Your task to perform on an android device: turn off priority inbox in the gmail app Image 0: 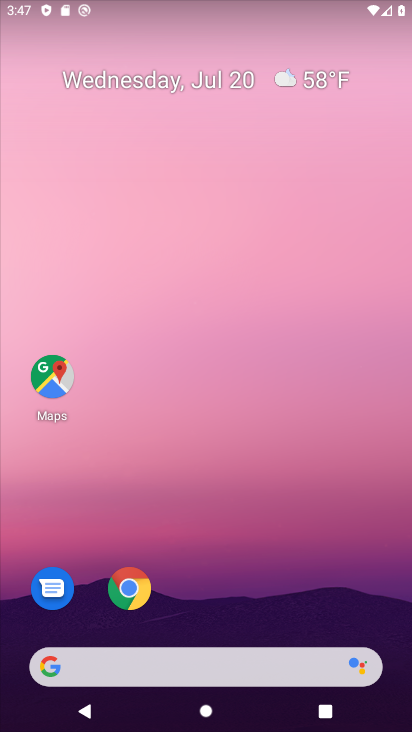
Step 0: drag from (251, 641) to (247, 53)
Your task to perform on an android device: turn off priority inbox in the gmail app Image 1: 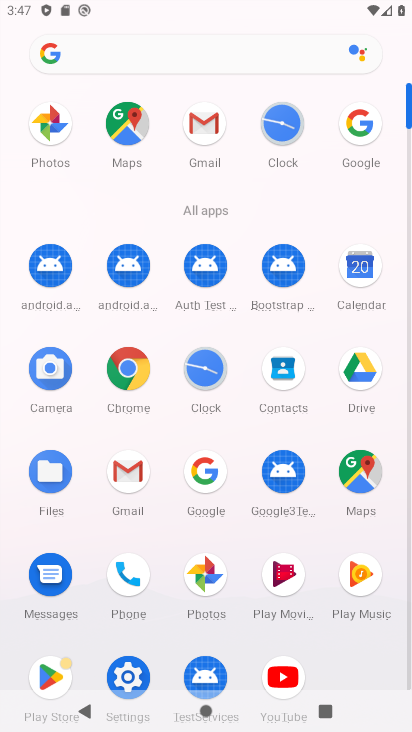
Step 1: click (126, 474)
Your task to perform on an android device: turn off priority inbox in the gmail app Image 2: 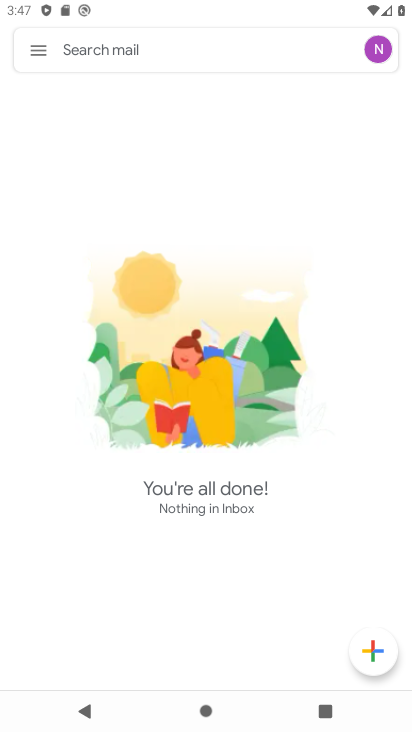
Step 2: click (40, 53)
Your task to perform on an android device: turn off priority inbox in the gmail app Image 3: 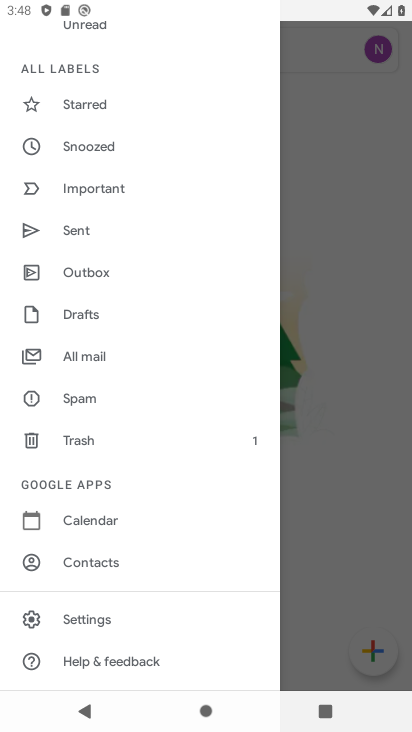
Step 3: click (108, 617)
Your task to perform on an android device: turn off priority inbox in the gmail app Image 4: 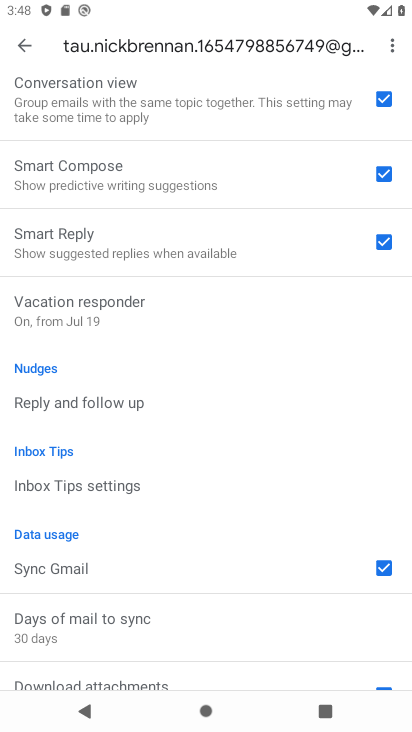
Step 4: drag from (88, 125) to (135, 484)
Your task to perform on an android device: turn off priority inbox in the gmail app Image 5: 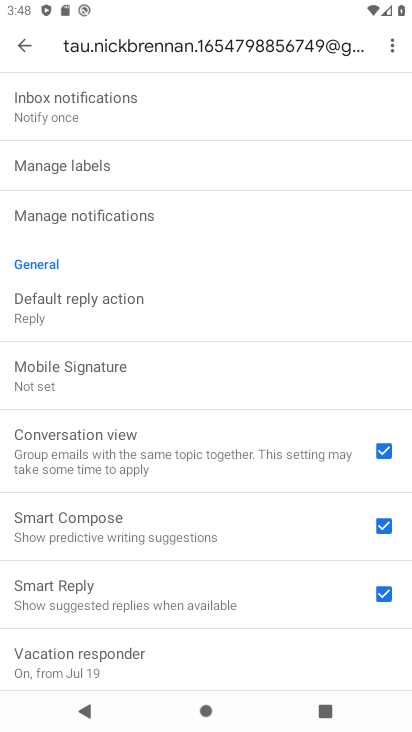
Step 5: drag from (79, 84) to (114, 514)
Your task to perform on an android device: turn off priority inbox in the gmail app Image 6: 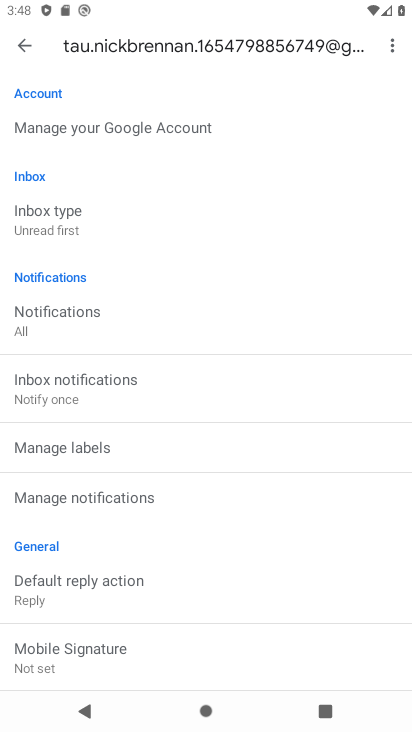
Step 6: click (41, 220)
Your task to perform on an android device: turn off priority inbox in the gmail app Image 7: 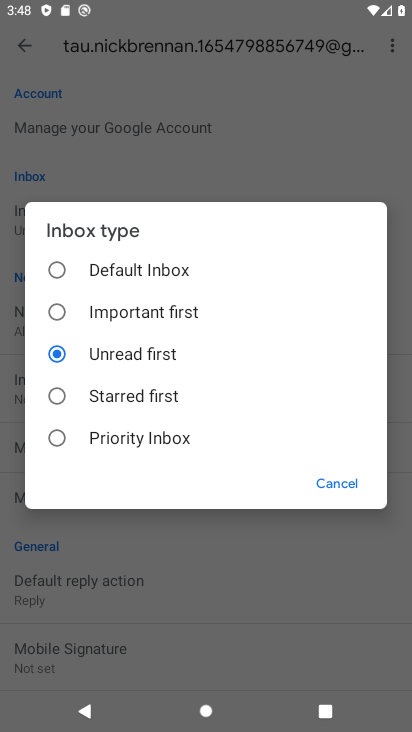
Step 7: click (140, 428)
Your task to perform on an android device: turn off priority inbox in the gmail app Image 8: 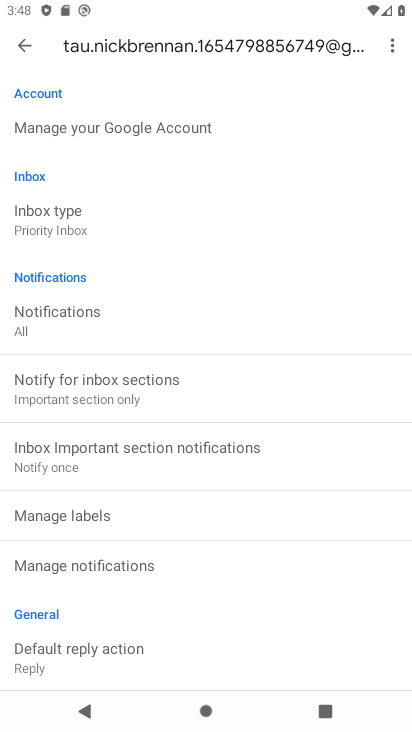
Step 8: click (66, 224)
Your task to perform on an android device: turn off priority inbox in the gmail app Image 9: 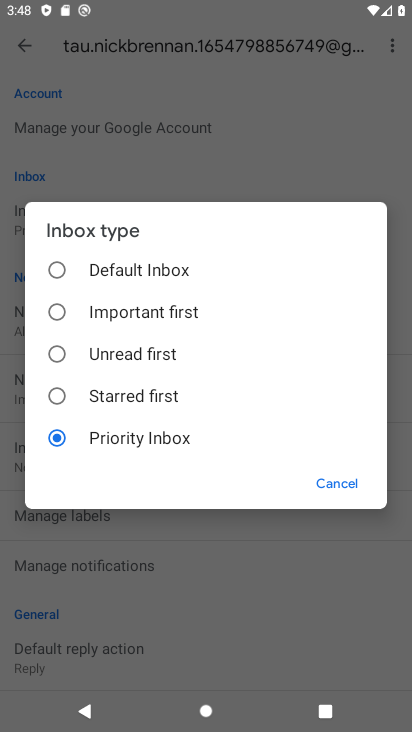
Step 9: click (113, 312)
Your task to perform on an android device: turn off priority inbox in the gmail app Image 10: 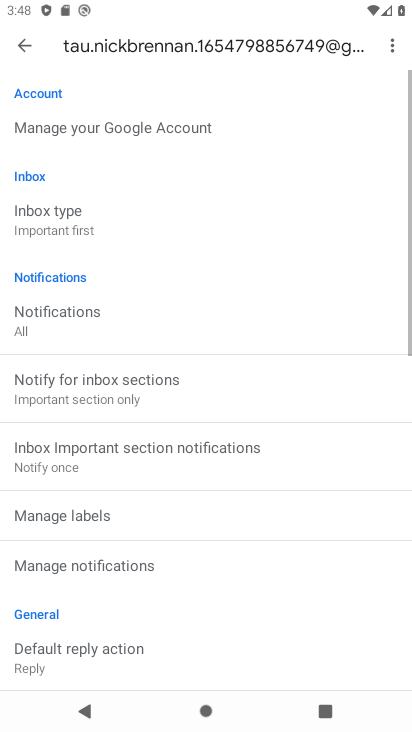
Step 10: task complete